Your task to perform on an android device: Go to Reddit.com Image 0: 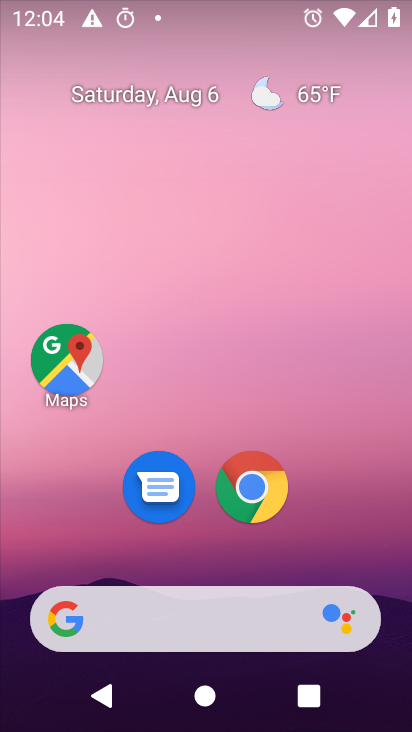
Step 0: click (230, 504)
Your task to perform on an android device: Go to Reddit.com Image 1: 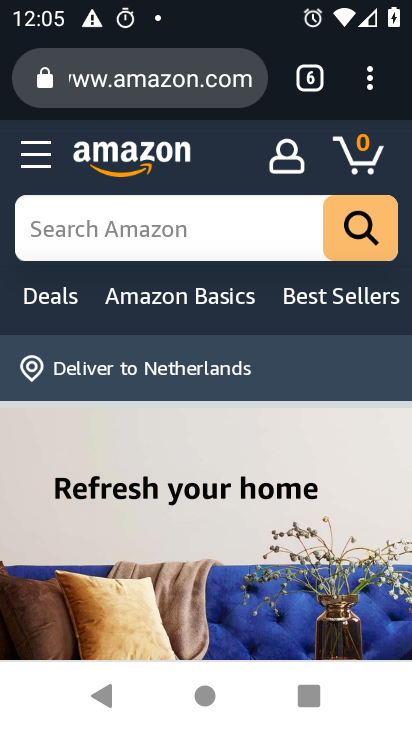
Step 1: click (324, 77)
Your task to perform on an android device: Go to Reddit.com Image 2: 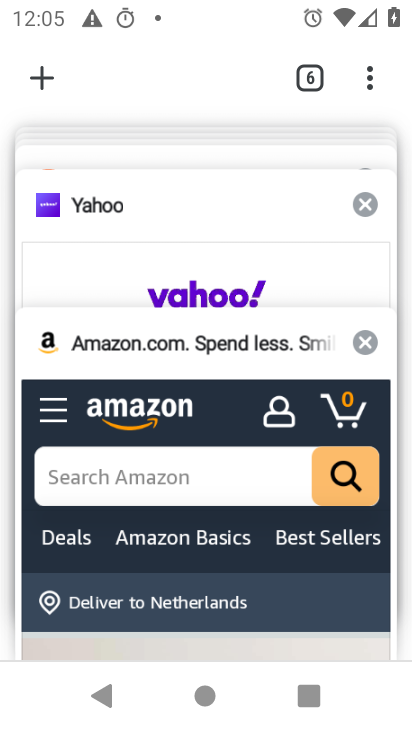
Step 2: click (40, 71)
Your task to perform on an android device: Go to Reddit.com Image 3: 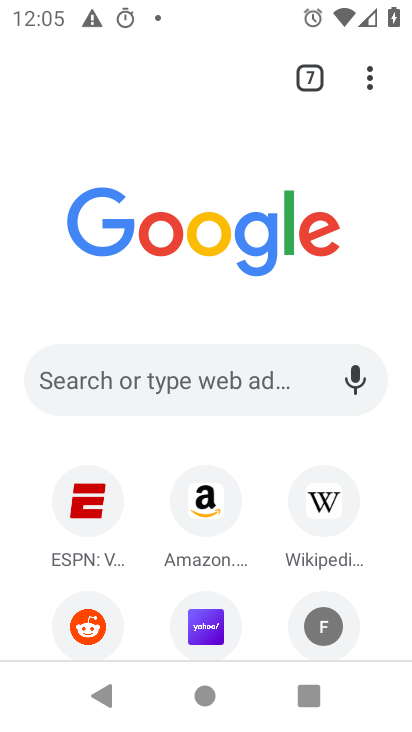
Step 3: click (93, 637)
Your task to perform on an android device: Go to Reddit.com Image 4: 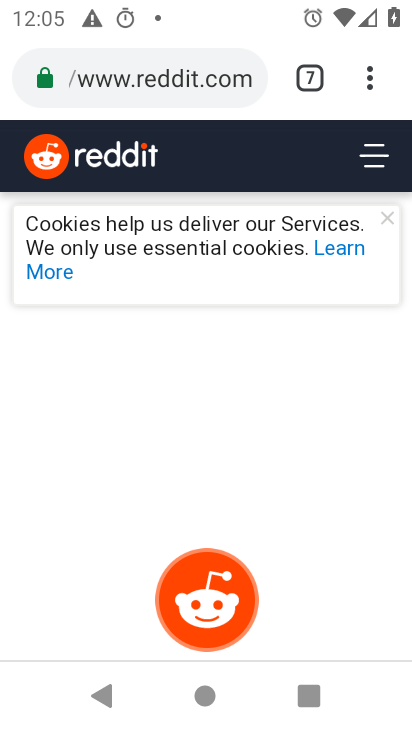
Step 4: task complete